Your task to perform on an android device: Open battery settings Image 0: 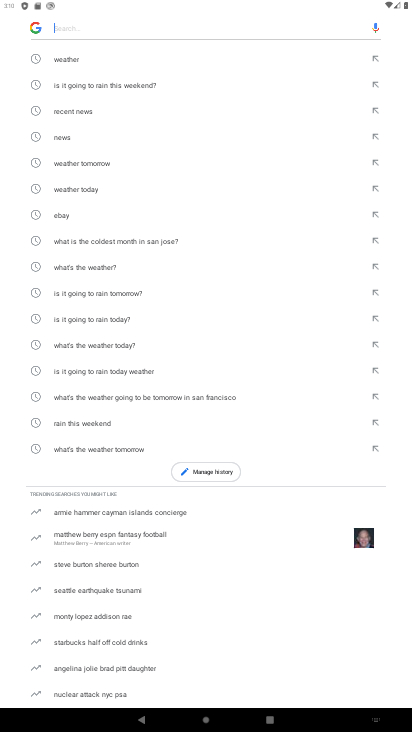
Step 0: press home button
Your task to perform on an android device: Open battery settings Image 1: 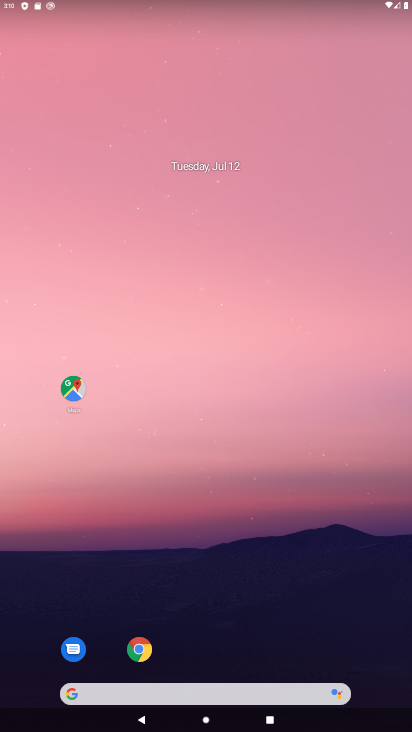
Step 1: drag from (144, 648) to (149, 303)
Your task to perform on an android device: Open battery settings Image 2: 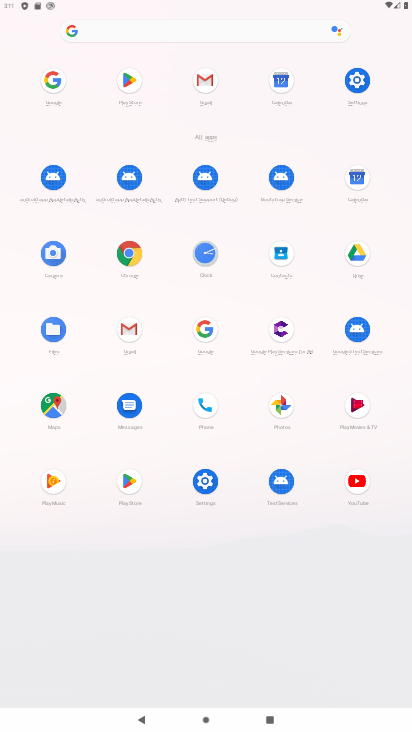
Step 2: click (357, 80)
Your task to perform on an android device: Open battery settings Image 3: 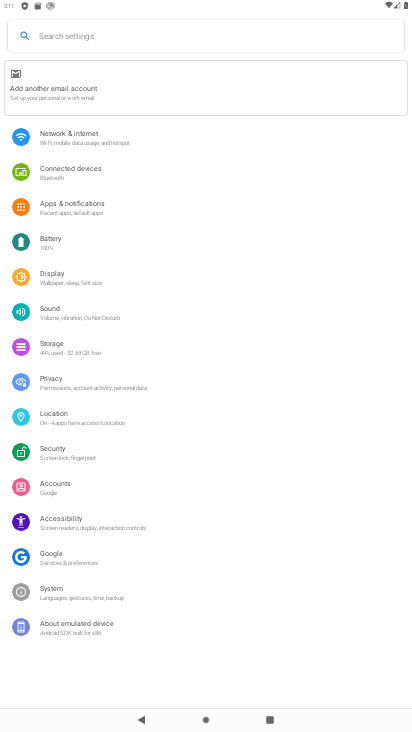
Step 3: click (59, 243)
Your task to perform on an android device: Open battery settings Image 4: 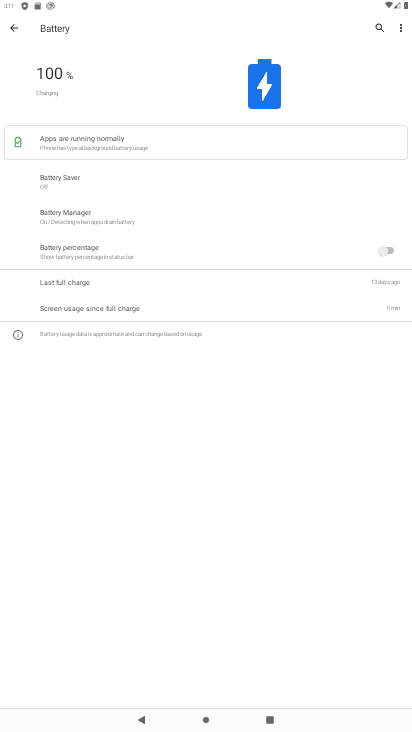
Step 4: task complete